Your task to perform on an android device: open app "Truecaller" (install if not already installed) and go to login screen Image 0: 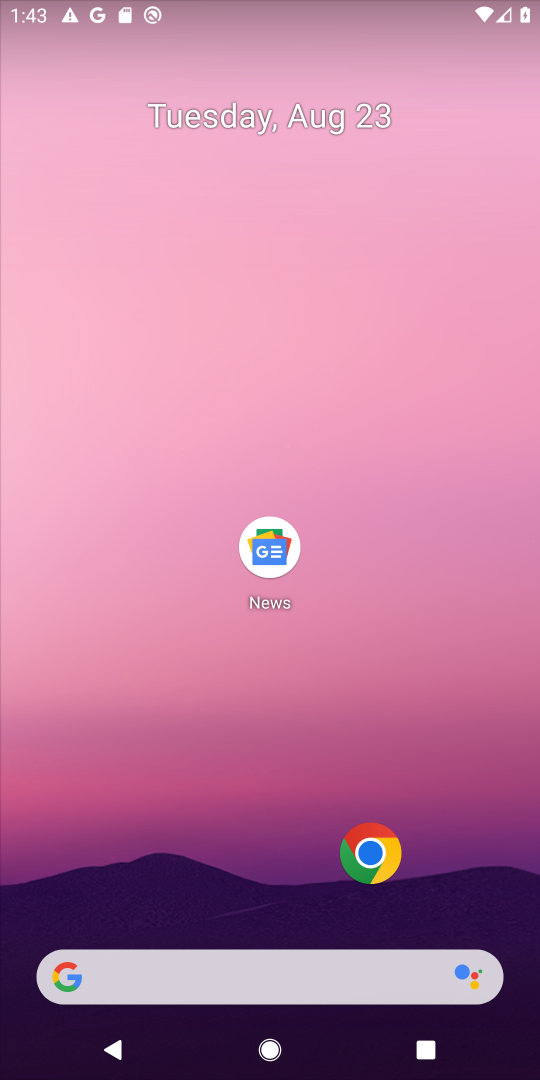
Step 0: drag from (527, 937) to (426, 0)
Your task to perform on an android device: open app "Truecaller" (install if not already installed) and go to login screen Image 1: 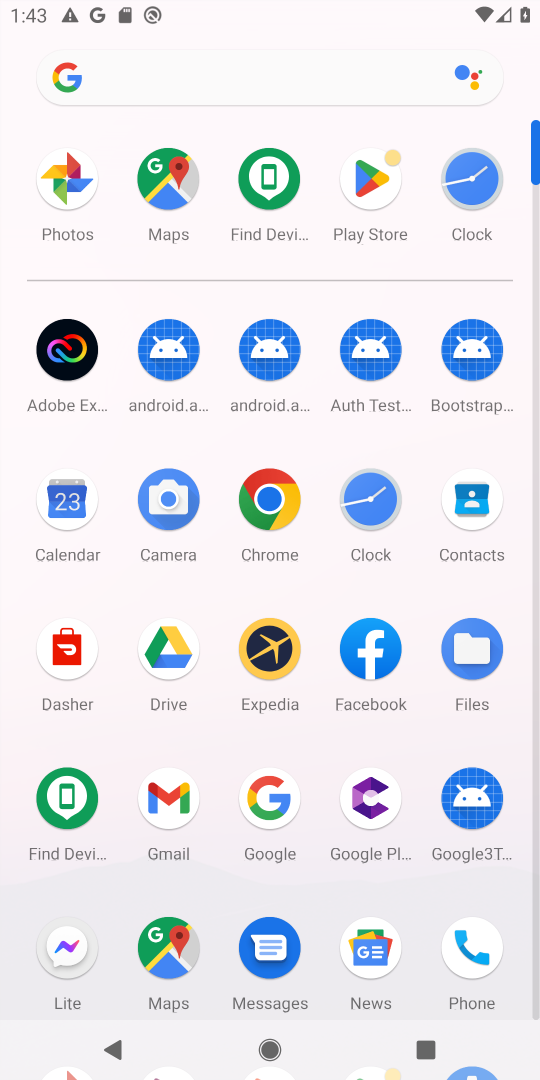
Step 1: click (537, 999)
Your task to perform on an android device: open app "Truecaller" (install if not already installed) and go to login screen Image 2: 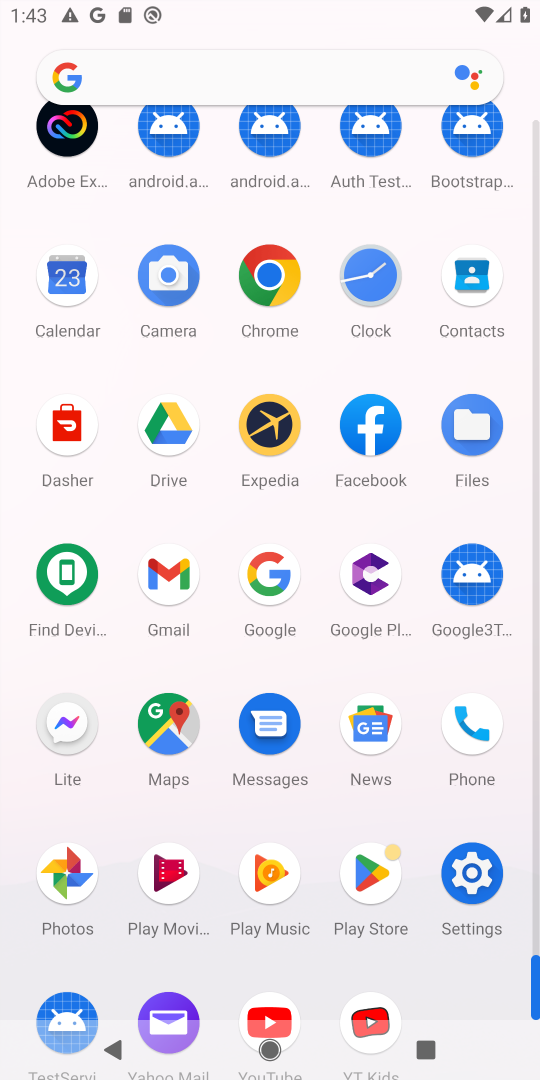
Step 2: click (376, 876)
Your task to perform on an android device: open app "Truecaller" (install if not already installed) and go to login screen Image 3: 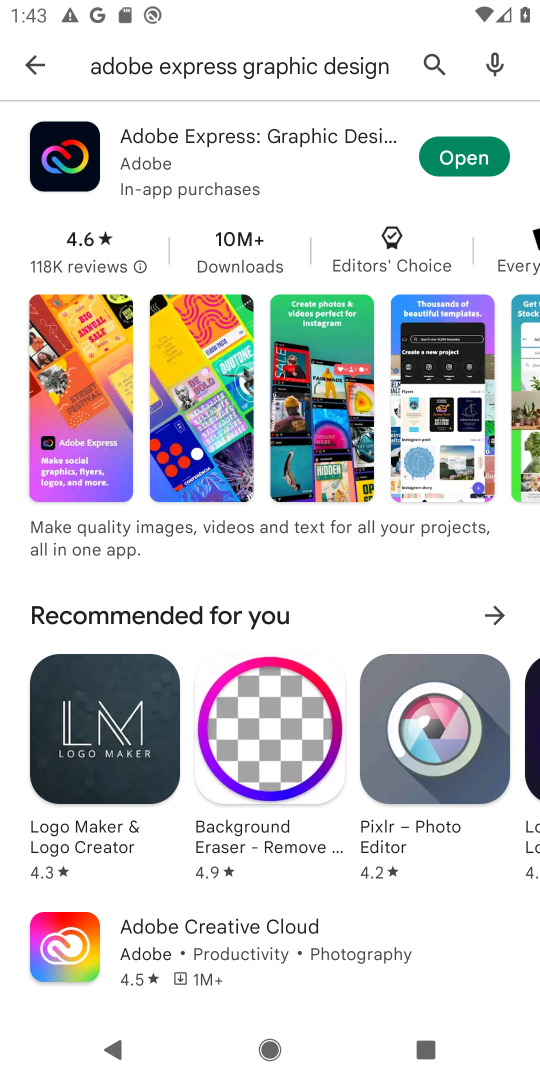
Step 3: click (432, 58)
Your task to perform on an android device: open app "Truecaller" (install if not already installed) and go to login screen Image 4: 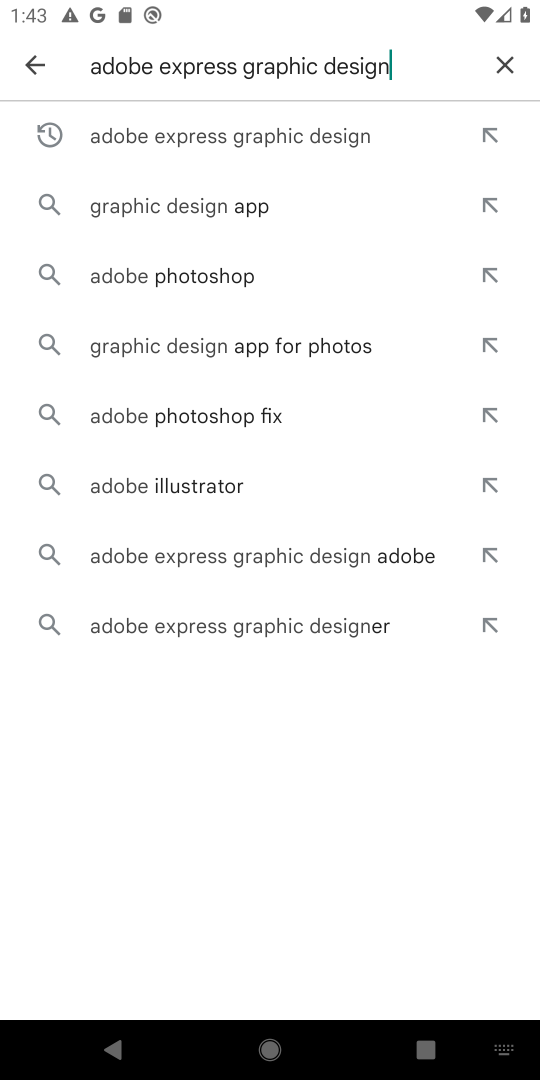
Step 4: click (501, 65)
Your task to perform on an android device: open app "Truecaller" (install if not already installed) and go to login screen Image 5: 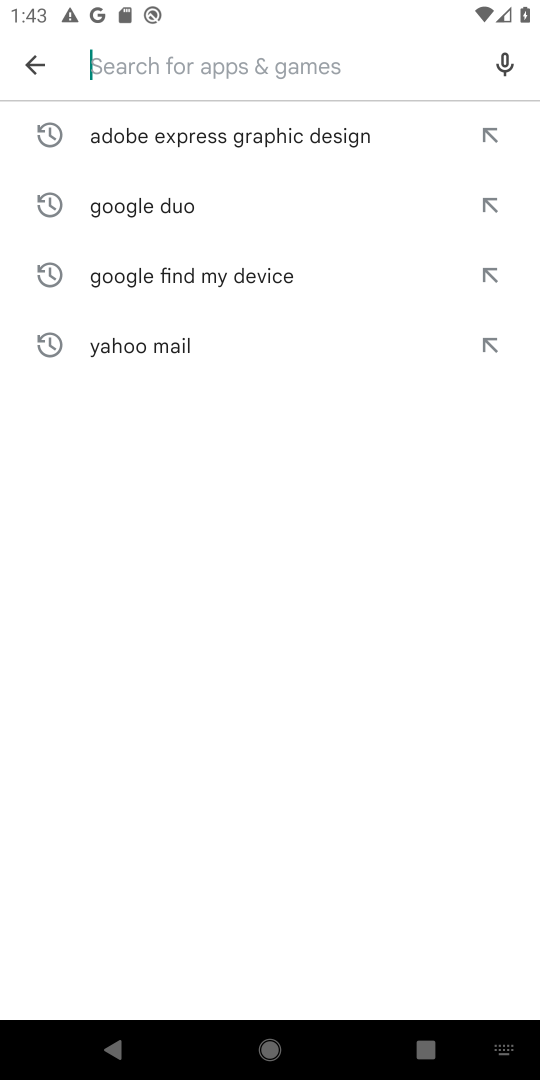
Step 5: type "Truecaller"
Your task to perform on an android device: open app "Truecaller" (install if not already installed) and go to login screen Image 6: 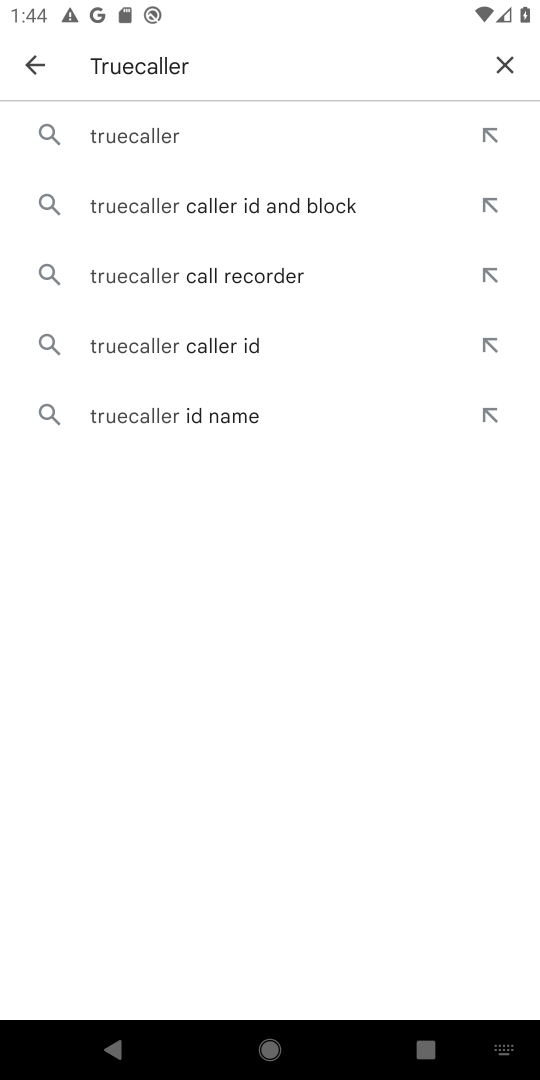
Step 6: click (142, 140)
Your task to perform on an android device: open app "Truecaller" (install if not already installed) and go to login screen Image 7: 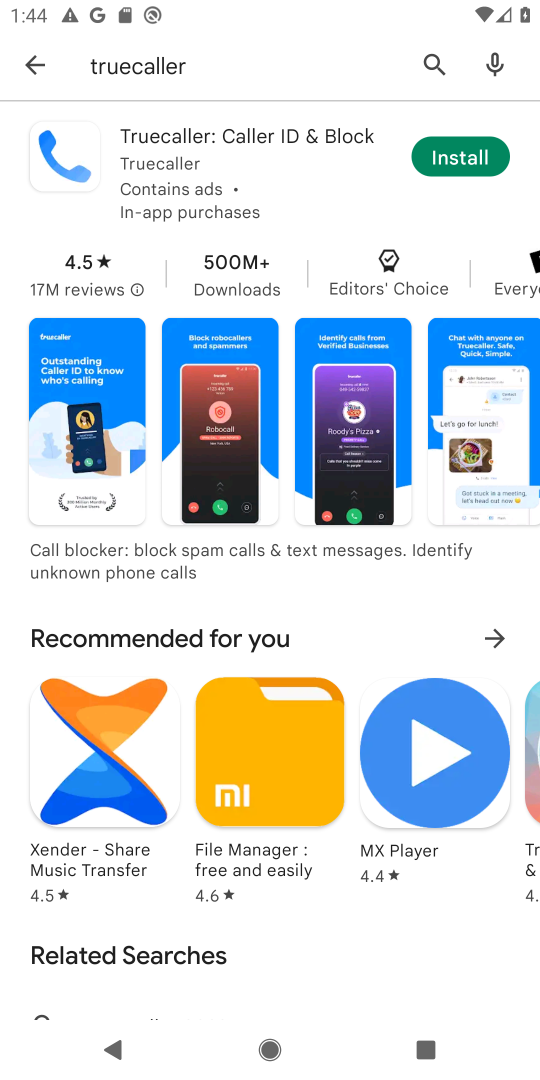
Step 7: click (466, 160)
Your task to perform on an android device: open app "Truecaller" (install if not already installed) and go to login screen Image 8: 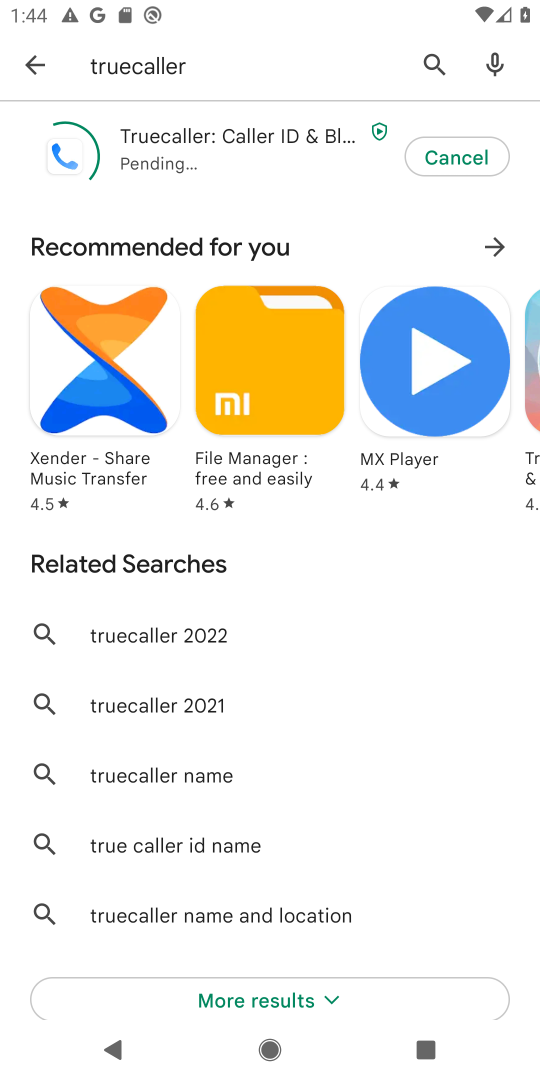
Step 8: click (207, 151)
Your task to perform on an android device: open app "Truecaller" (install if not already installed) and go to login screen Image 9: 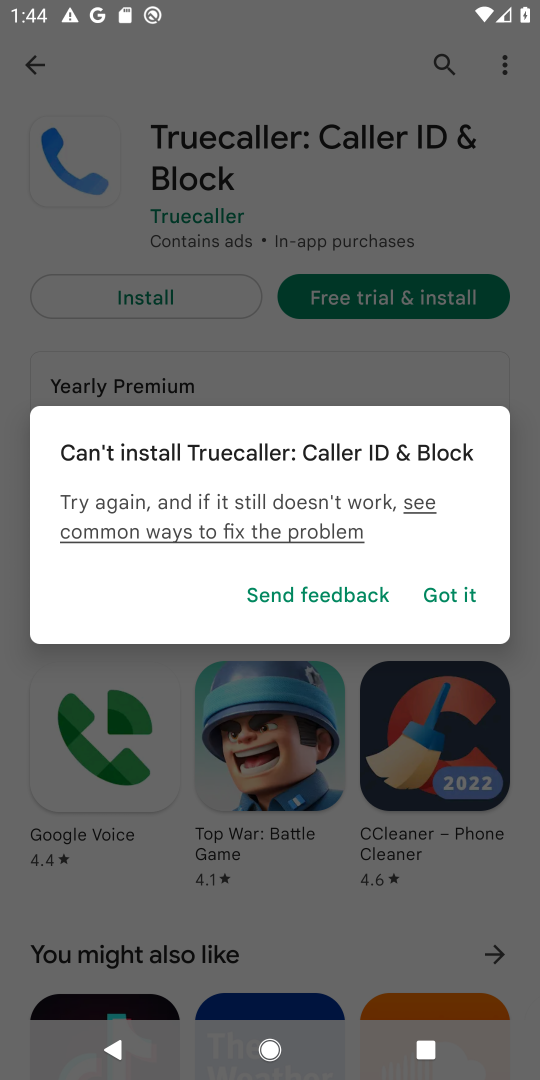
Step 9: click (436, 592)
Your task to perform on an android device: open app "Truecaller" (install if not already installed) and go to login screen Image 10: 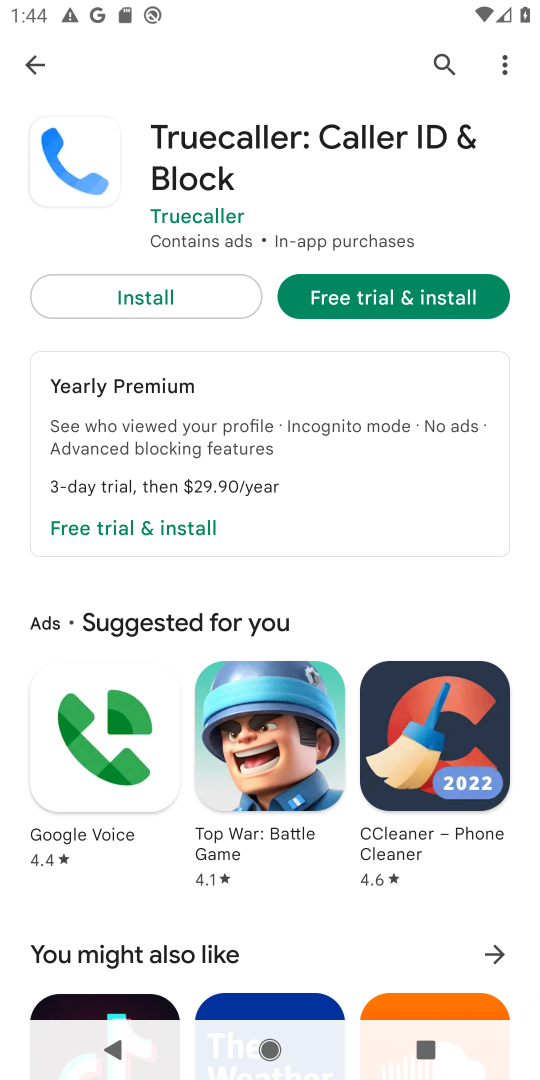
Step 10: click (138, 295)
Your task to perform on an android device: open app "Truecaller" (install if not already installed) and go to login screen Image 11: 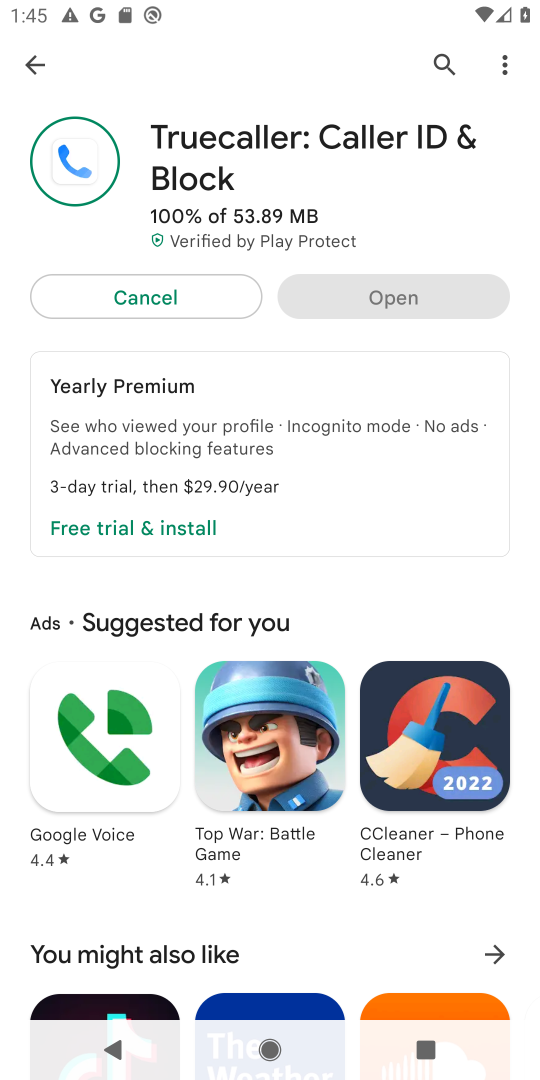
Step 11: click (289, 325)
Your task to perform on an android device: open app "Truecaller" (install if not already installed) and go to login screen Image 12: 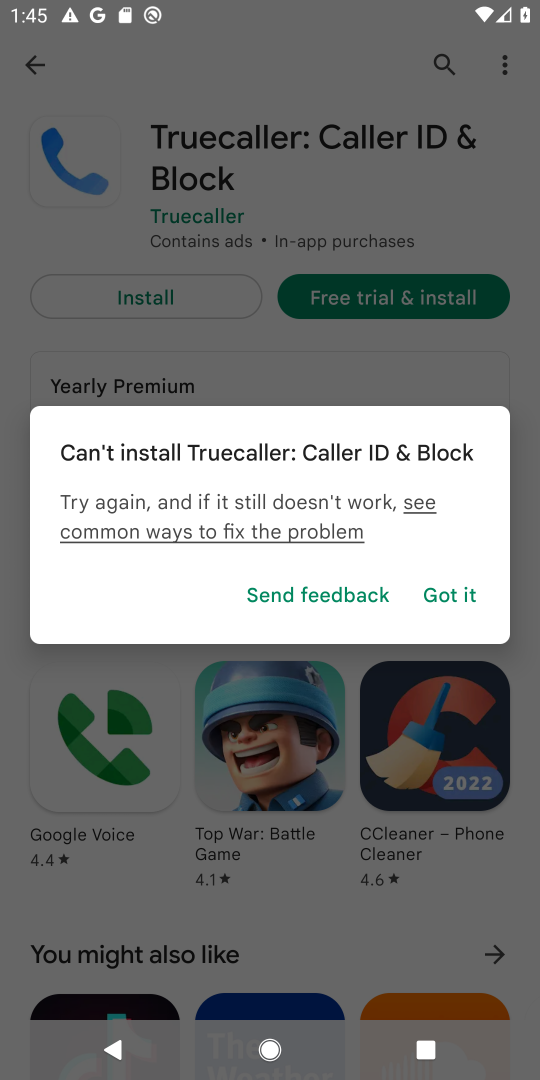
Step 12: task complete